Your task to perform on an android device: Go to Amazon Image 0: 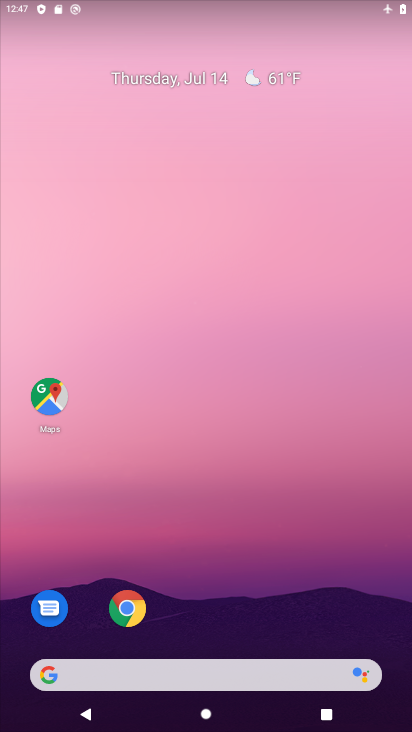
Step 0: drag from (297, 611) to (375, 125)
Your task to perform on an android device: Go to Amazon Image 1: 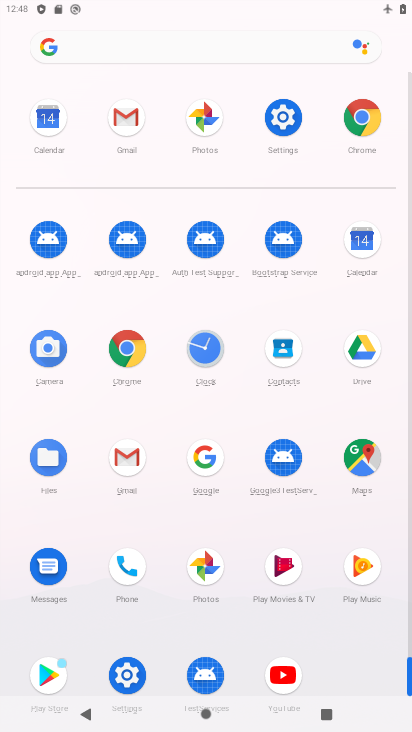
Step 1: click (127, 352)
Your task to perform on an android device: Go to Amazon Image 2: 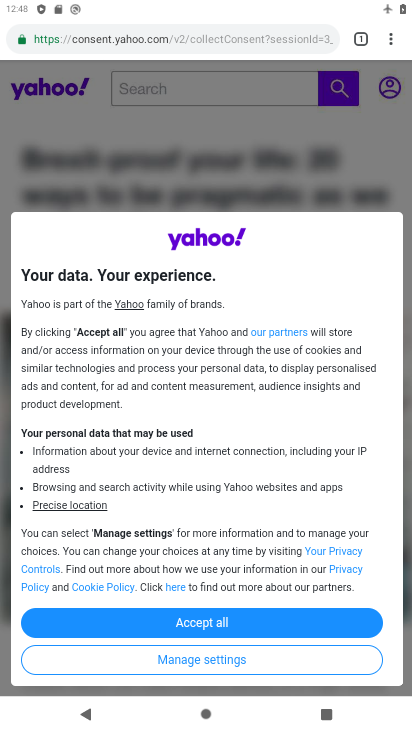
Step 2: click (211, 36)
Your task to perform on an android device: Go to Amazon Image 3: 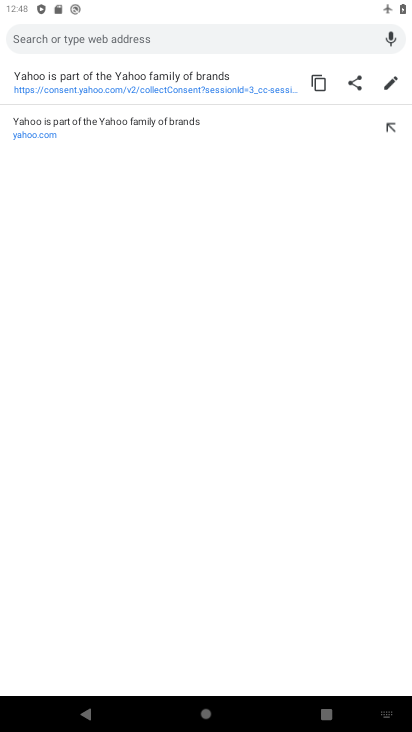
Step 3: type "amazon"
Your task to perform on an android device: Go to Amazon Image 4: 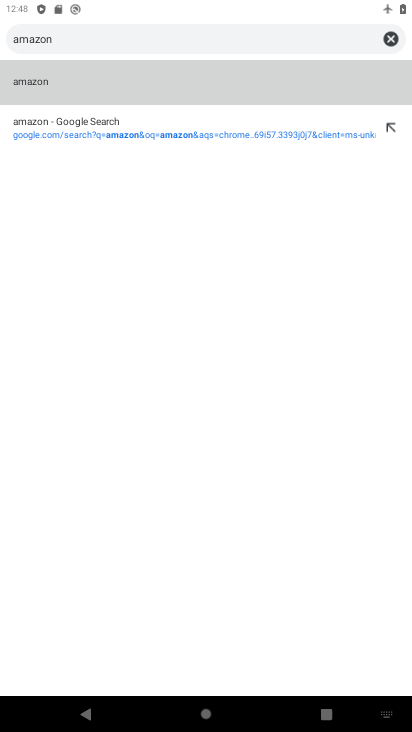
Step 4: click (151, 88)
Your task to perform on an android device: Go to Amazon Image 5: 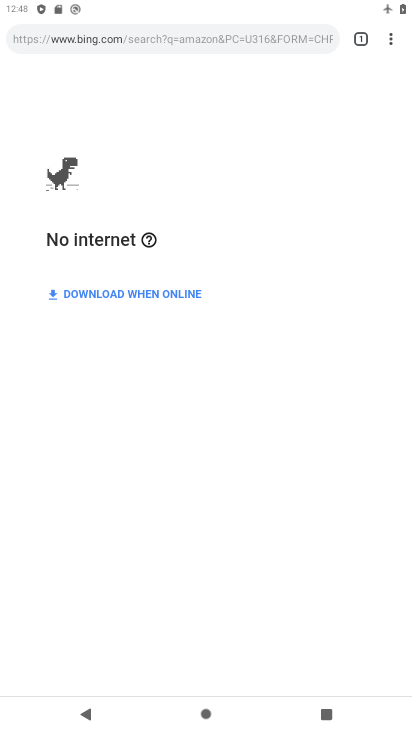
Step 5: task complete